Your task to perform on an android device: Go to notification settings Image 0: 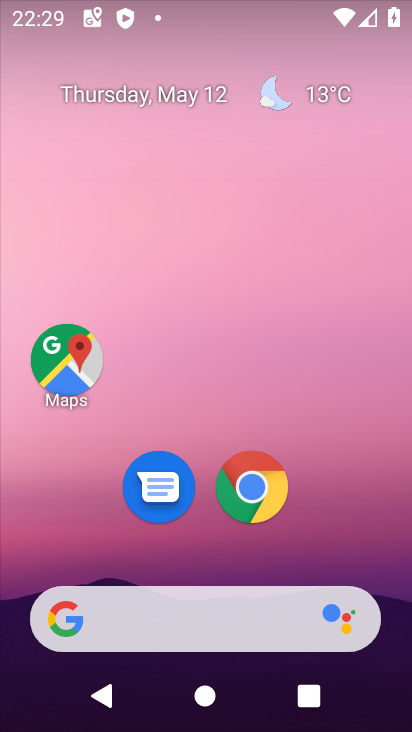
Step 0: drag from (173, 544) to (256, 60)
Your task to perform on an android device: Go to notification settings Image 1: 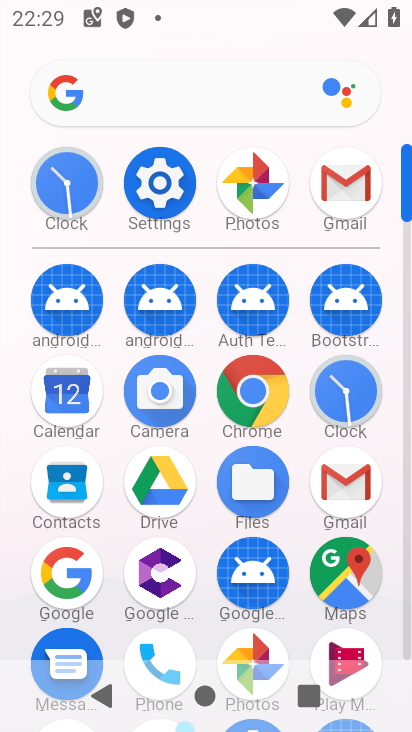
Step 1: click (180, 214)
Your task to perform on an android device: Go to notification settings Image 2: 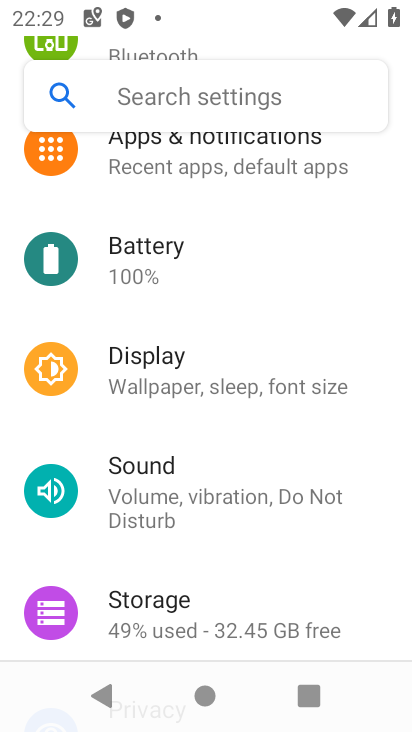
Step 2: click (208, 172)
Your task to perform on an android device: Go to notification settings Image 3: 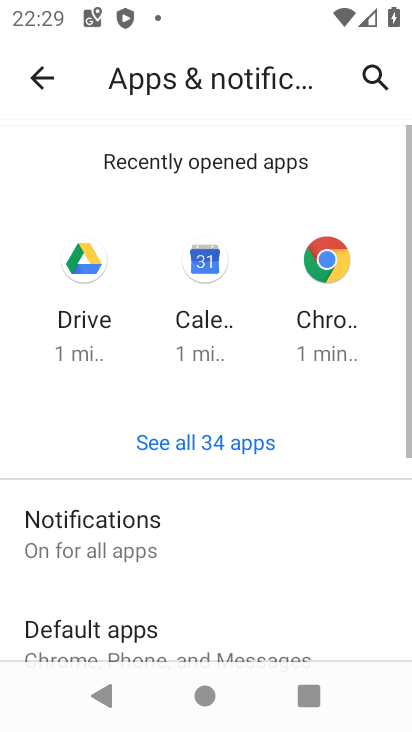
Step 3: task complete